Your task to perform on an android device: empty trash in the gmail app Image 0: 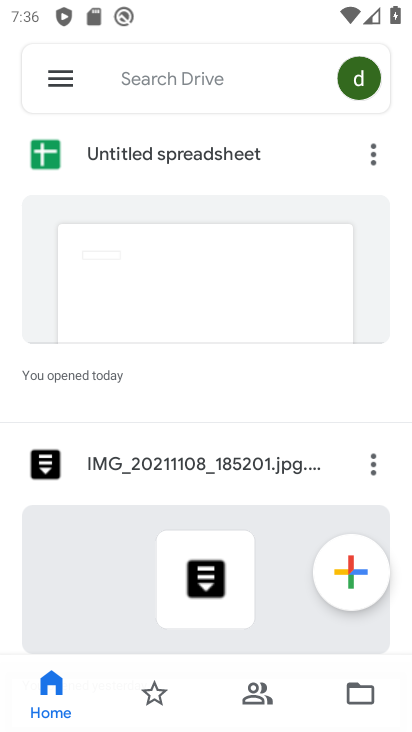
Step 0: press home button
Your task to perform on an android device: empty trash in the gmail app Image 1: 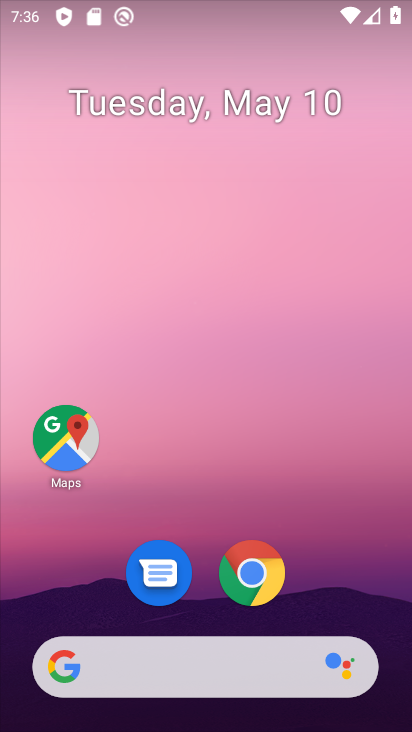
Step 1: drag from (353, 590) to (339, 158)
Your task to perform on an android device: empty trash in the gmail app Image 2: 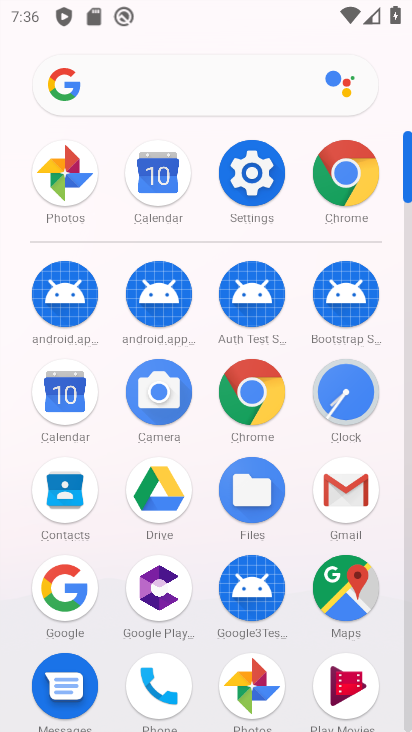
Step 2: click (346, 483)
Your task to perform on an android device: empty trash in the gmail app Image 3: 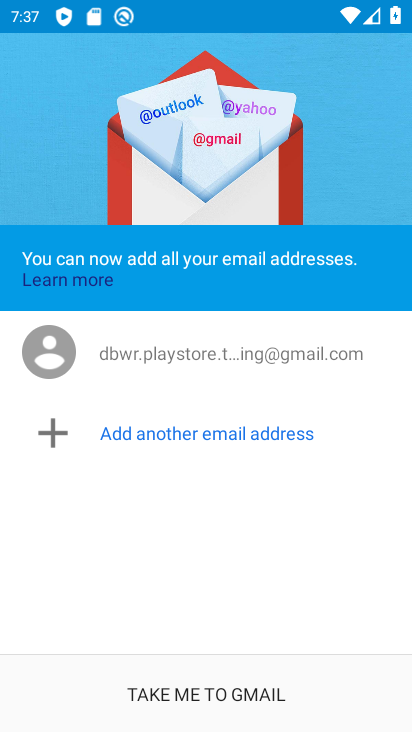
Step 3: click (215, 692)
Your task to perform on an android device: empty trash in the gmail app Image 4: 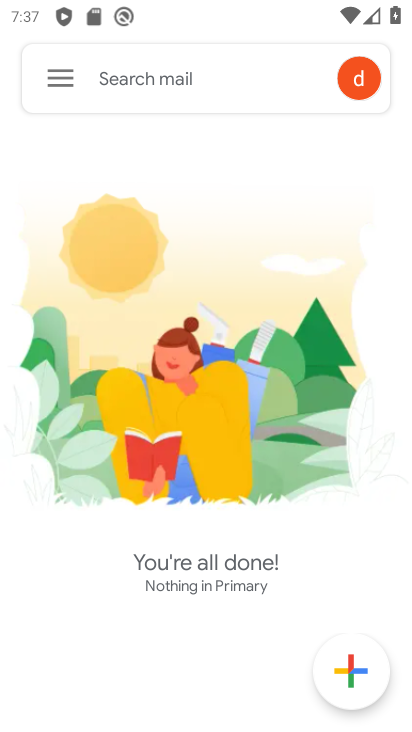
Step 4: click (55, 76)
Your task to perform on an android device: empty trash in the gmail app Image 5: 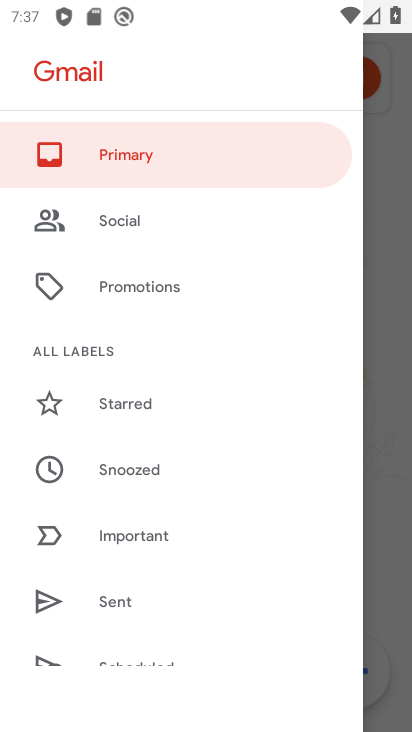
Step 5: drag from (179, 588) to (188, 187)
Your task to perform on an android device: empty trash in the gmail app Image 6: 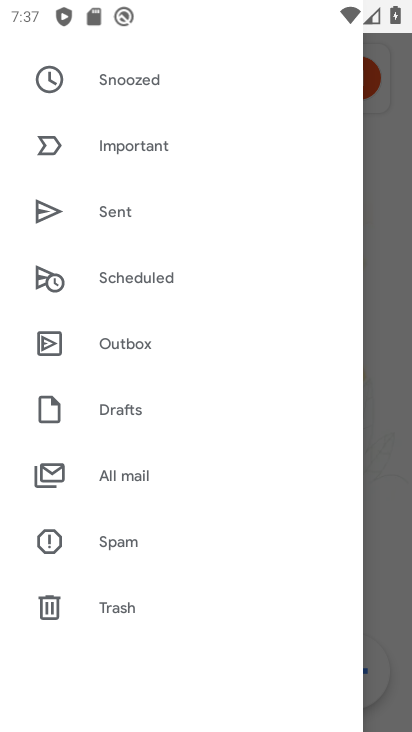
Step 6: click (135, 606)
Your task to perform on an android device: empty trash in the gmail app Image 7: 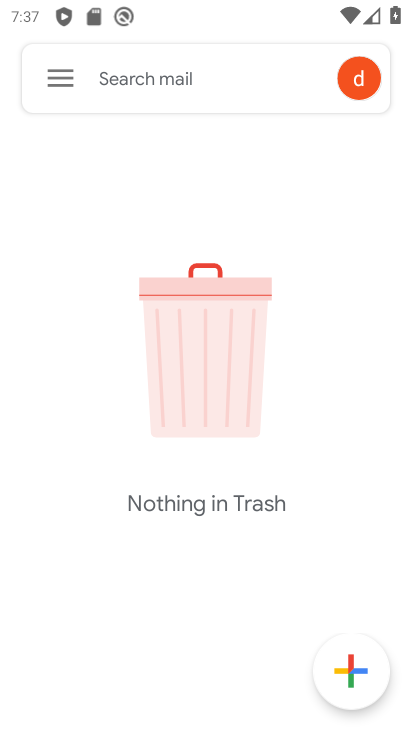
Step 7: task complete